Your task to perform on an android device: View the shopping cart on walmart.com. Search for "razer huntsman" on walmart.com, select the first entry, and add it to the cart. Image 0: 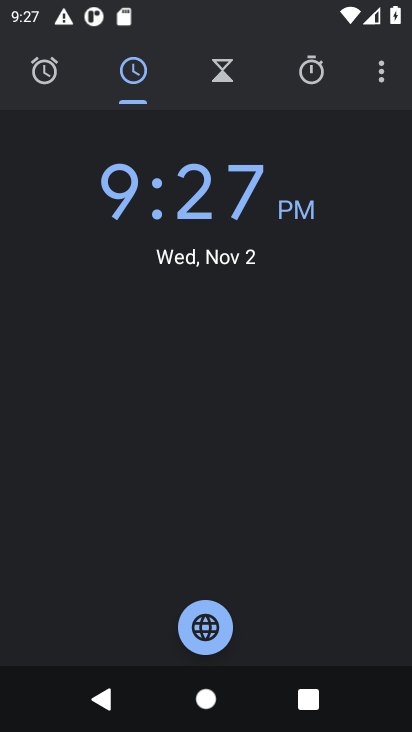
Step 0: press home button
Your task to perform on an android device: View the shopping cart on walmart.com. Search for "razer huntsman" on walmart.com, select the first entry, and add it to the cart. Image 1: 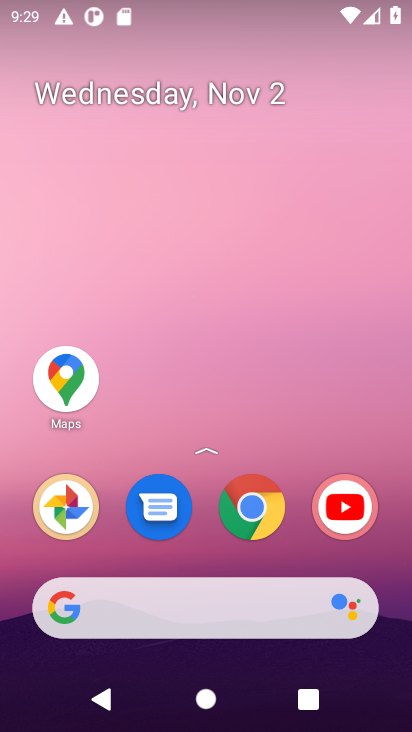
Step 1: task complete